Your task to perform on an android device: change the clock display to show seconds Image 0: 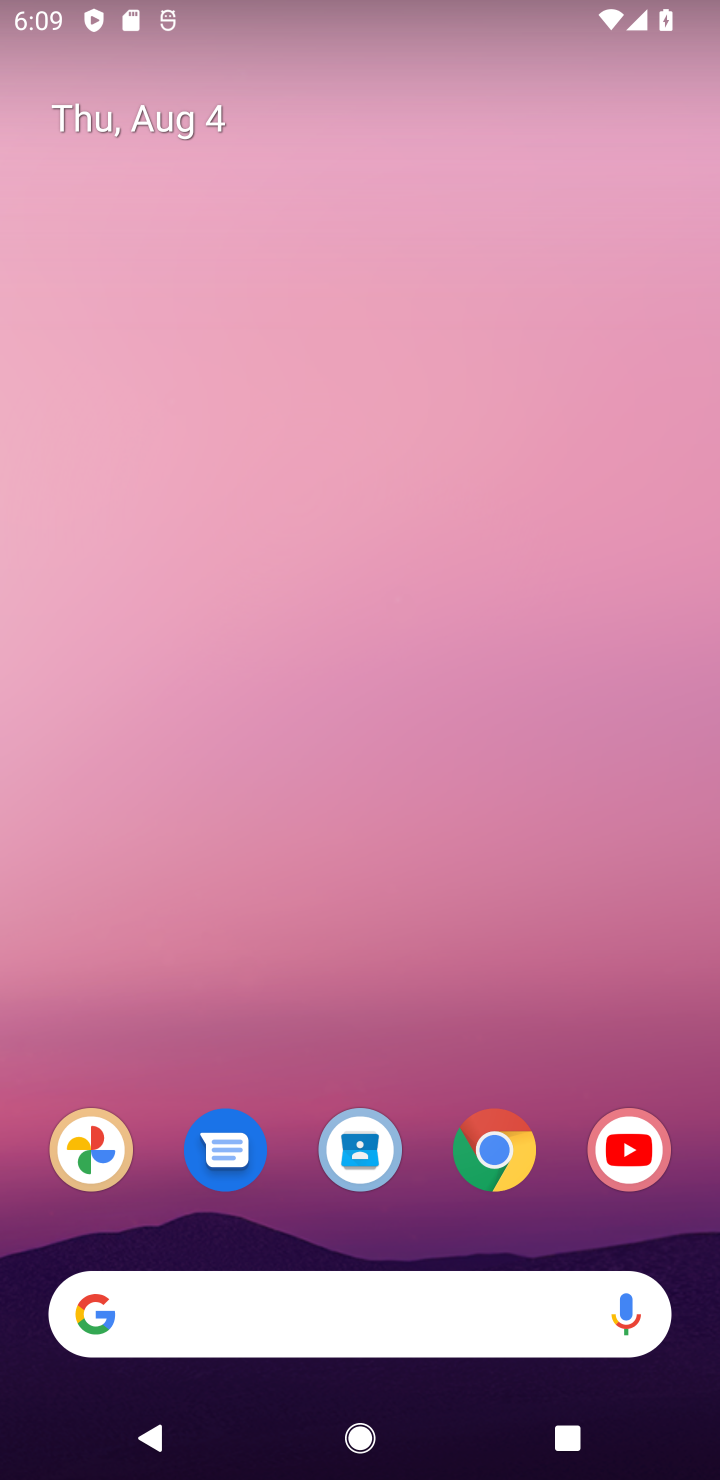
Step 0: drag from (501, 984) to (674, 65)
Your task to perform on an android device: change the clock display to show seconds Image 1: 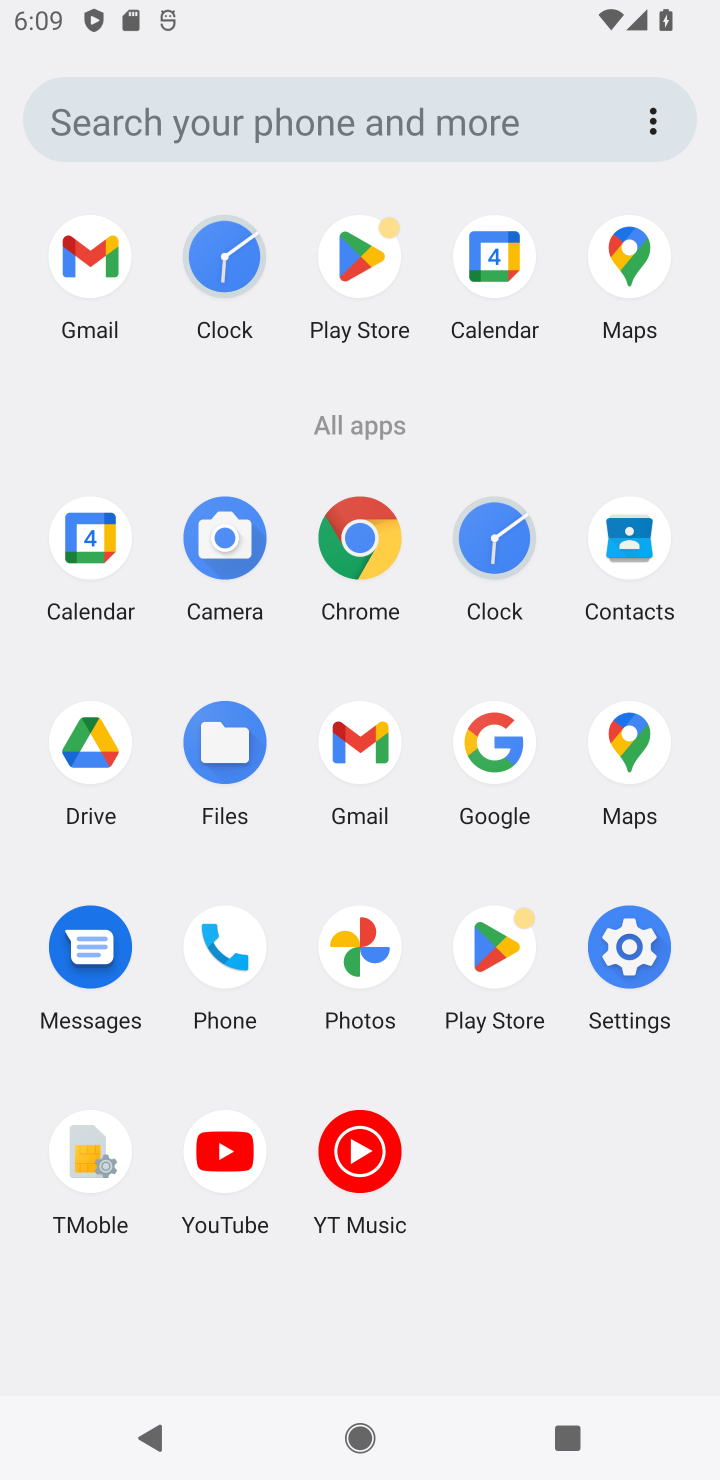
Step 1: click (632, 951)
Your task to perform on an android device: change the clock display to show seconds Image 2: 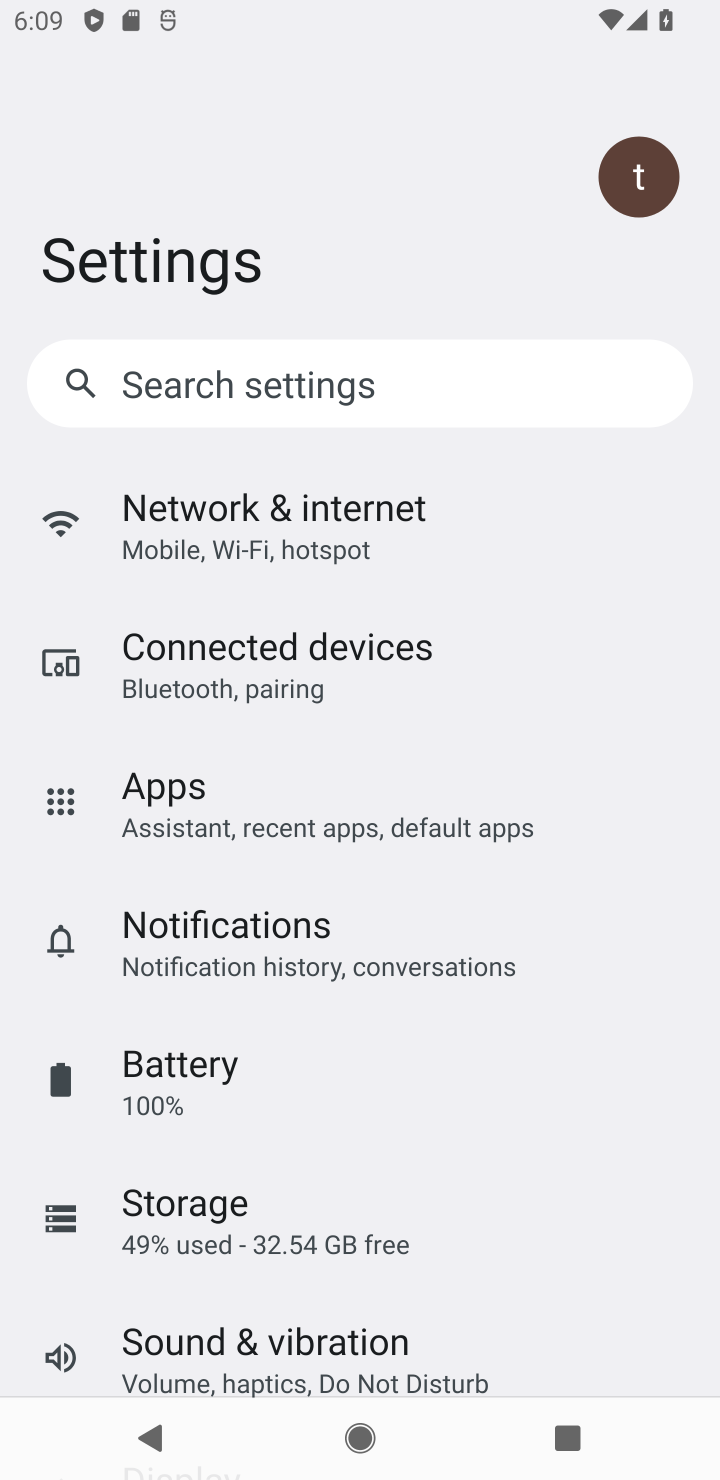
Step 2: press home button
Your task to perform on an android device: change the clock display to show seconds Image 3: 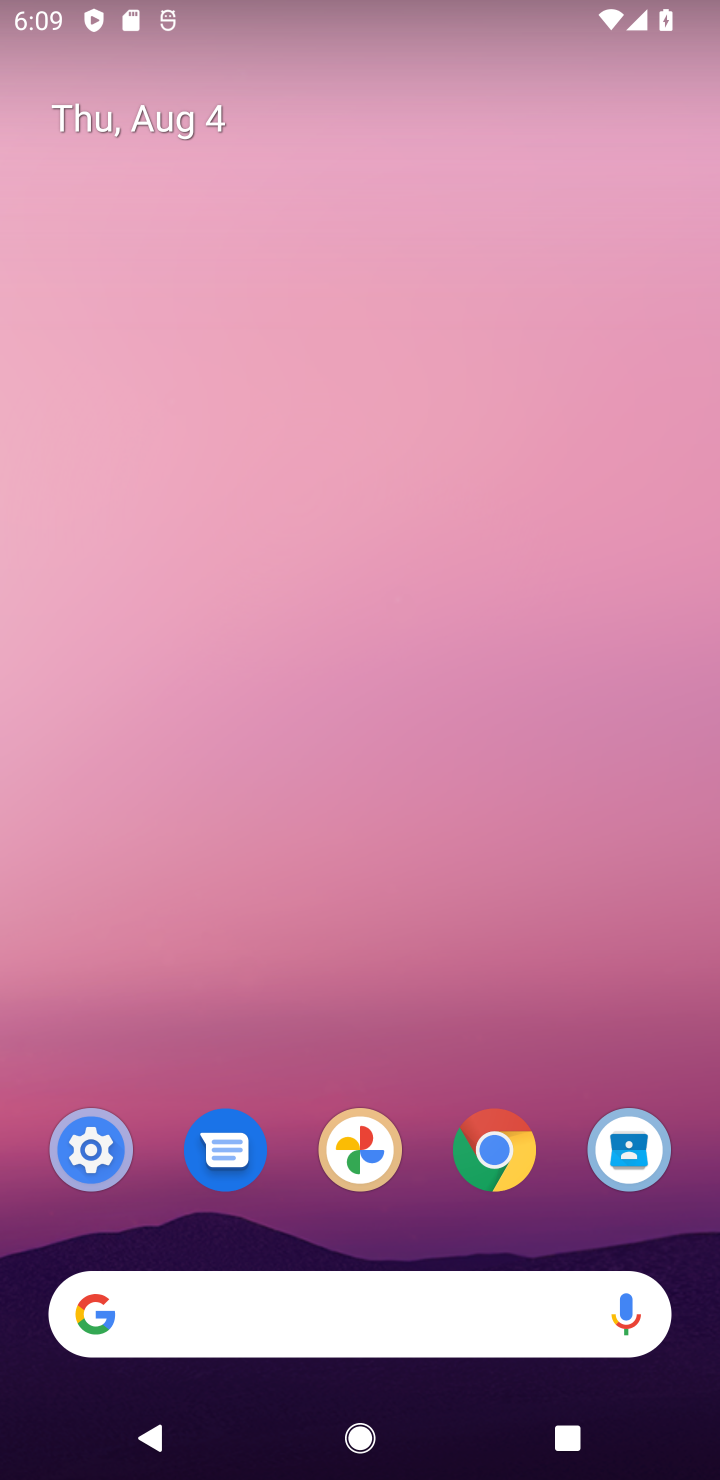
Step 3: drag from (464, 1222) to (639, 4)
Your task to perform on an android device: change the clock display to show seconds Image 4: 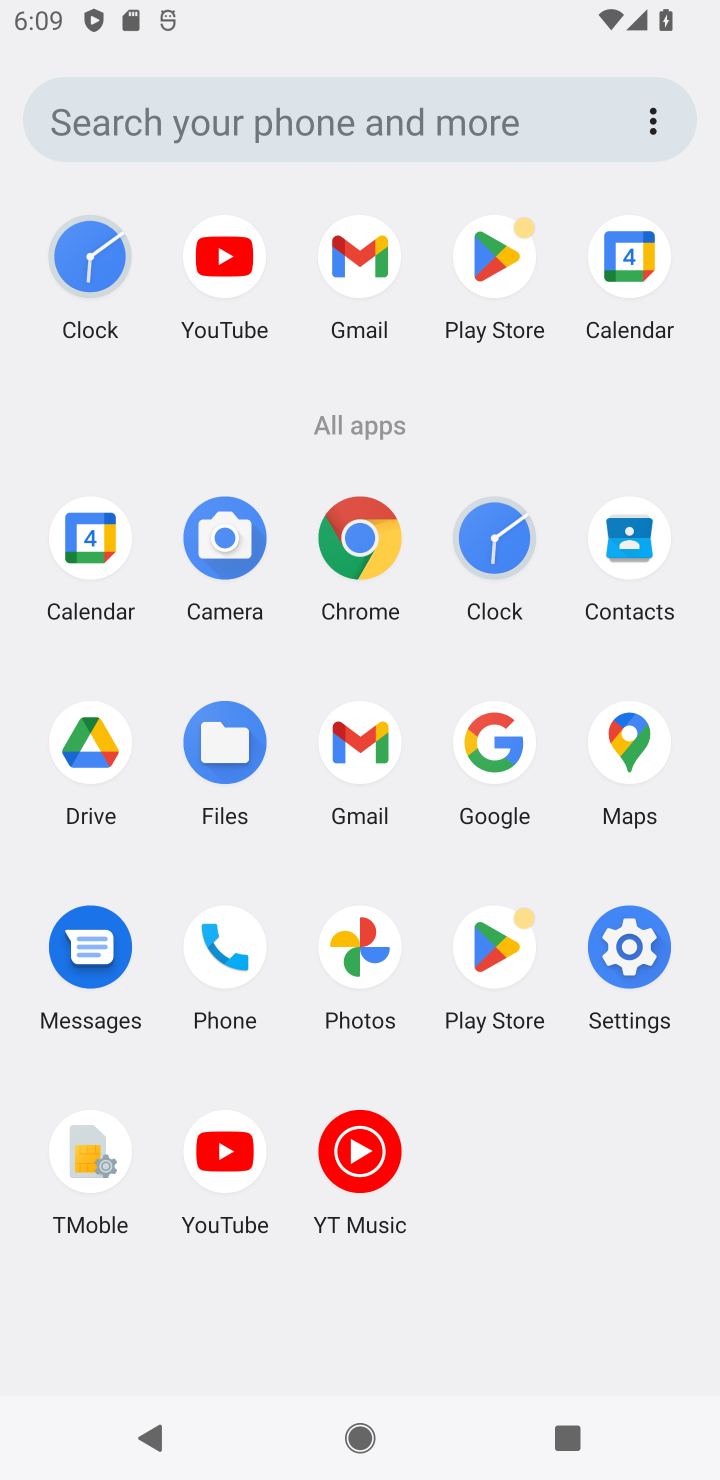
Step 4: click (497, 531)
Your task to perform on an android device: change the clock display to show seconds Image 5: 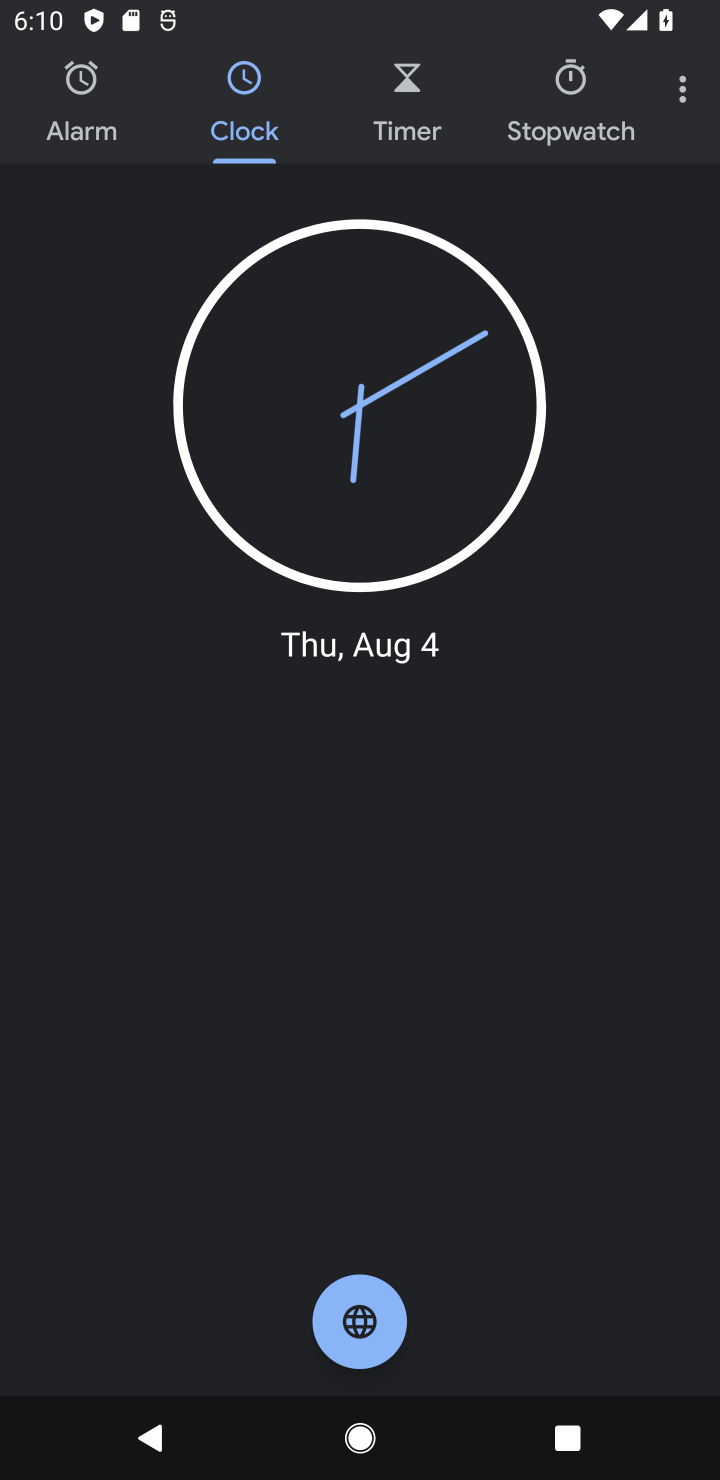
Step 5: click (690, 102)
Your task to perform on an android device: change the clock display to show seconds Image 6: 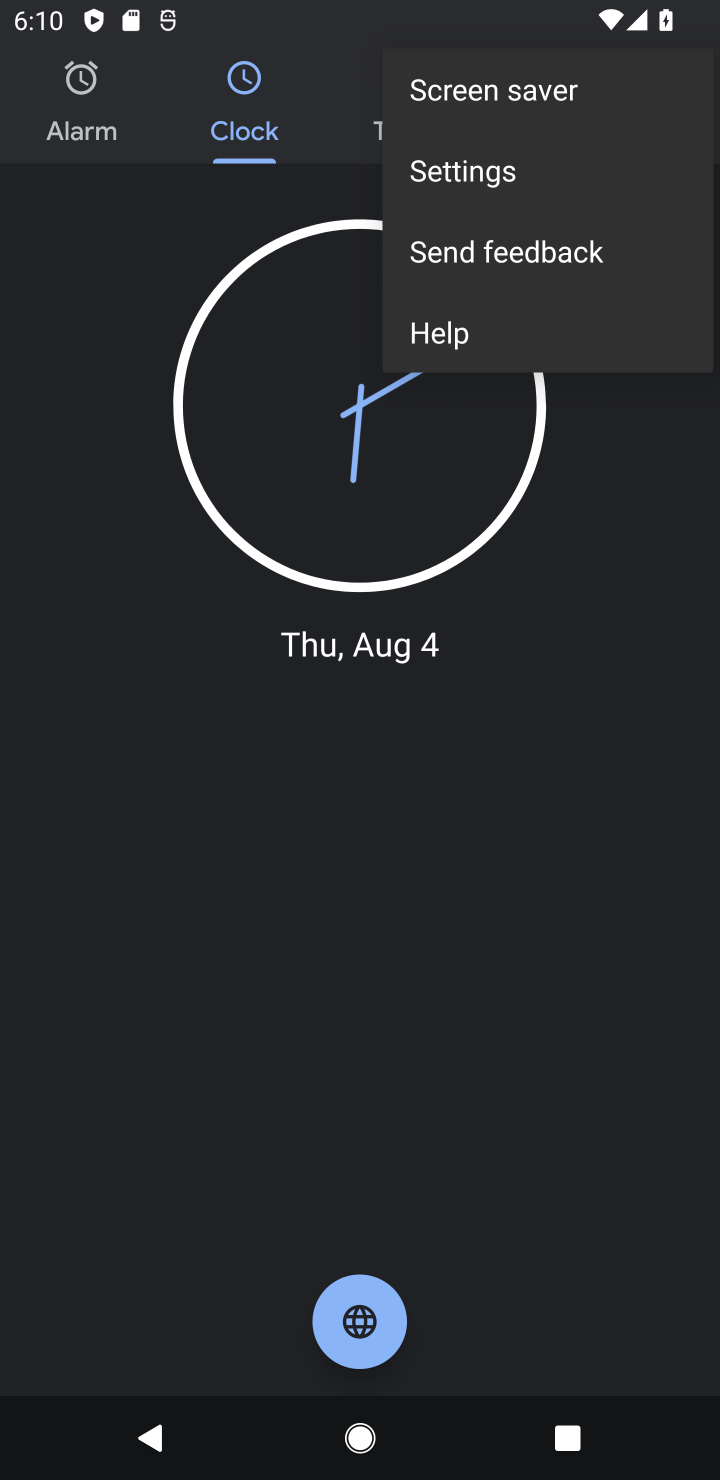
Step 6: click (477, 161)
Your task to perform on an android device: change the clock display to show seconds Image 7: 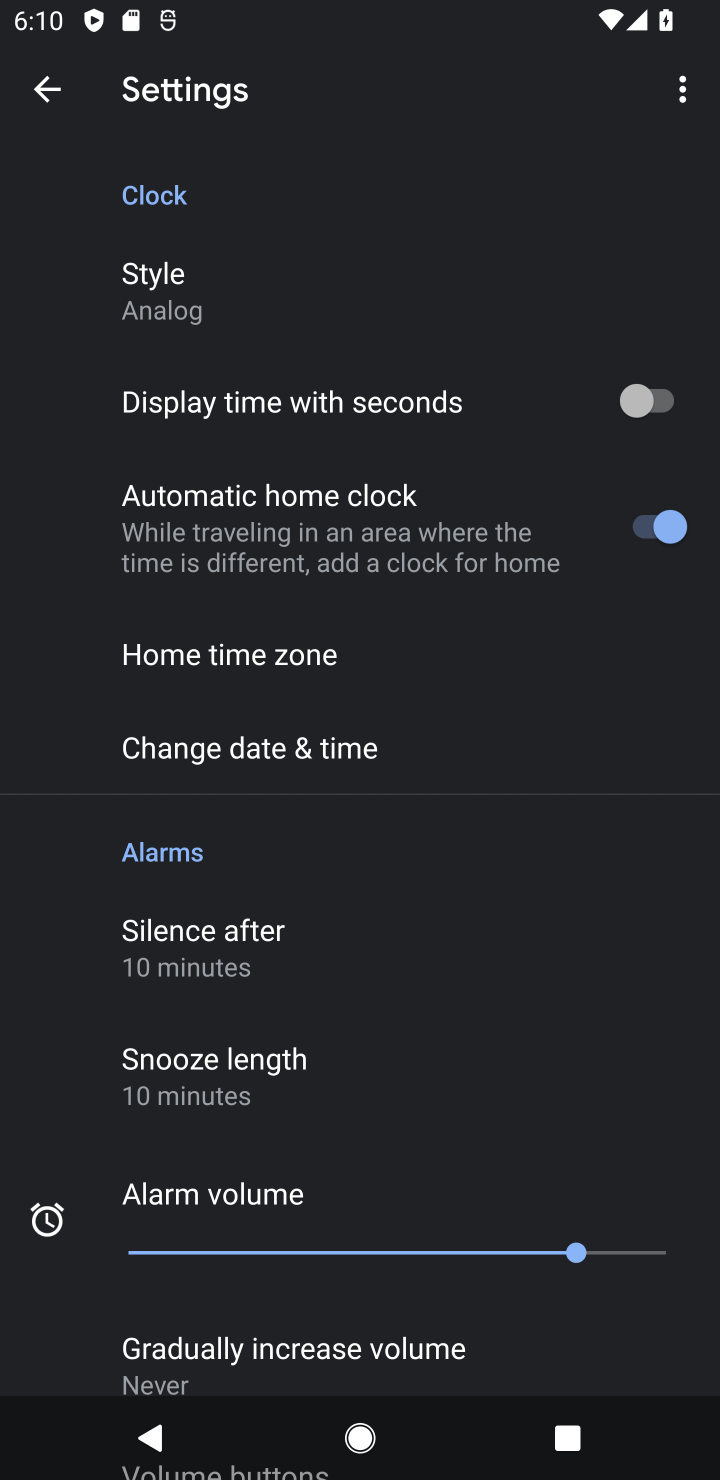
Step 7: click (657, 405)
Your task to perform on an android device: change the clock display to show seconds Image 8: 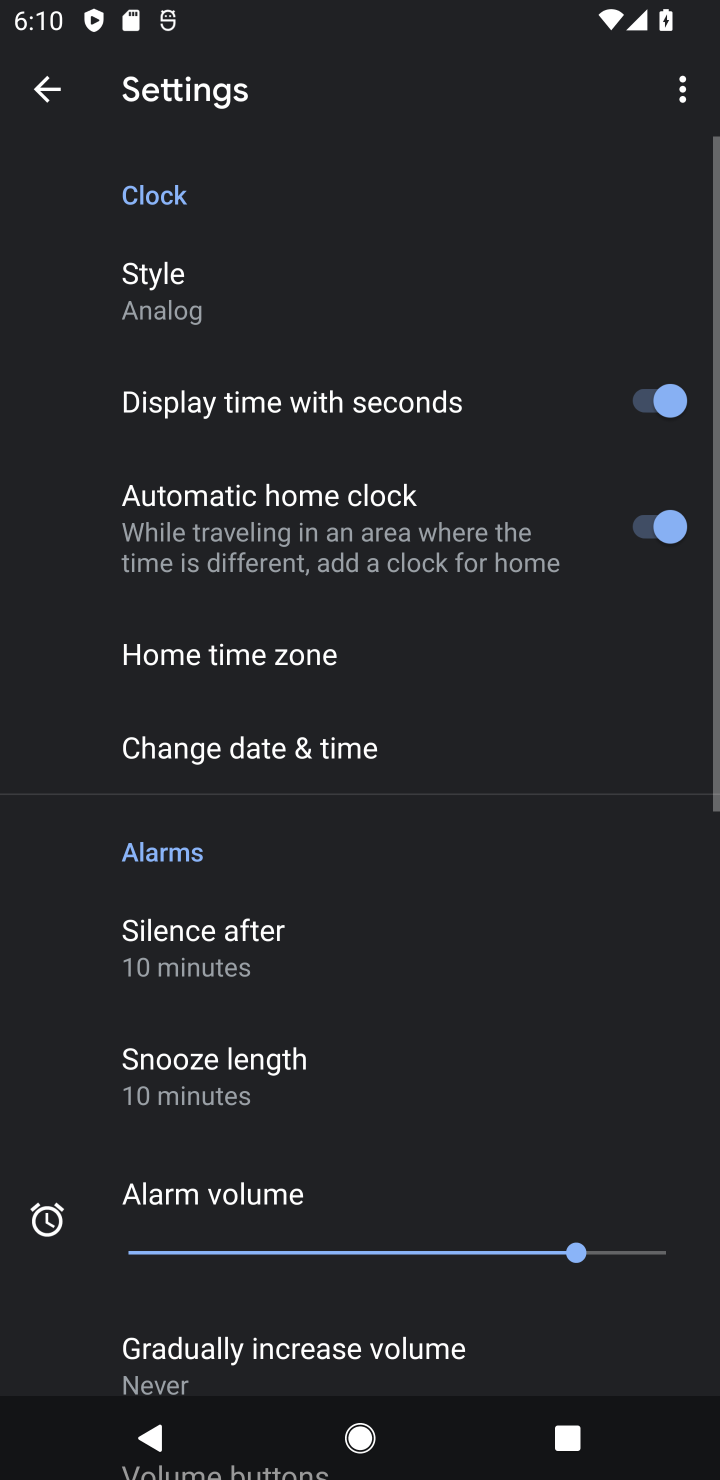
Step 8: task complete